Your task to perform on an android device: Go to CNN.com Image 0: 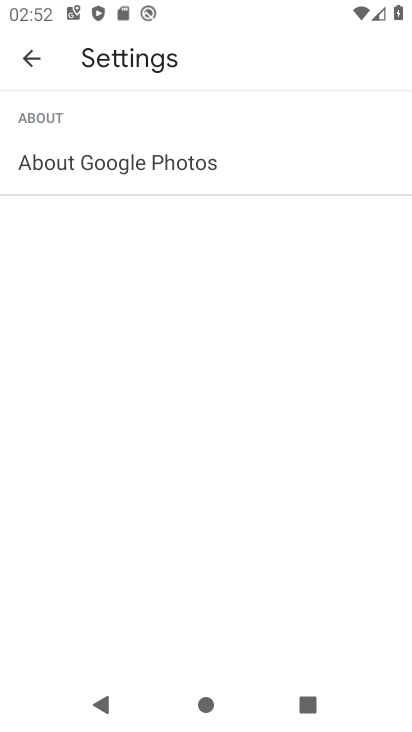
Step 0: press home button
Your task to perform on an android device: Go to CNN.com Image 1: 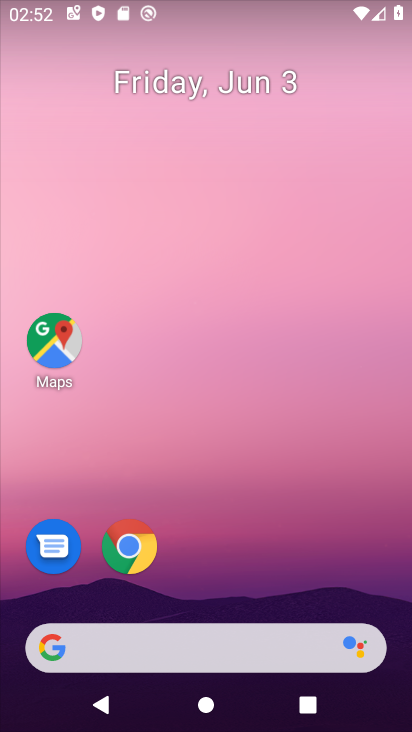
Step 1: click (120, 532)
Your task to perform on an android device: Go to CNN.com Image 2: 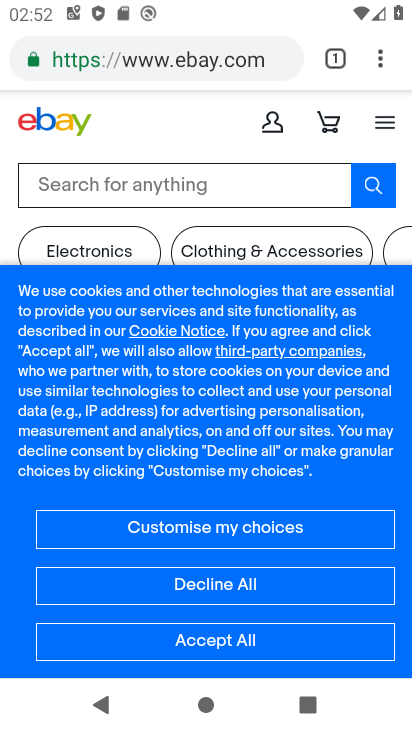
Step 2: click (193, 65)
Your task to perform on an android device: Go to CNN.com Image 3: 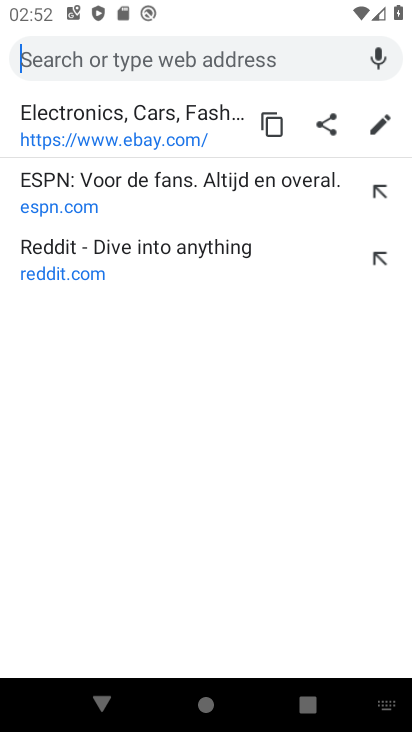
Step 3: type "CNN.com"
Your task to perform on an android device: Go to CNN.com Image 4: 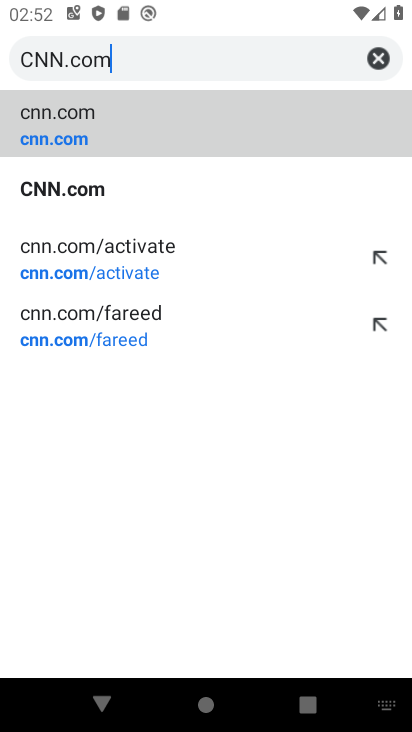
Step 4: click (43, 99)
Your task to perform on an android device: Go to CNN.com Image 5: 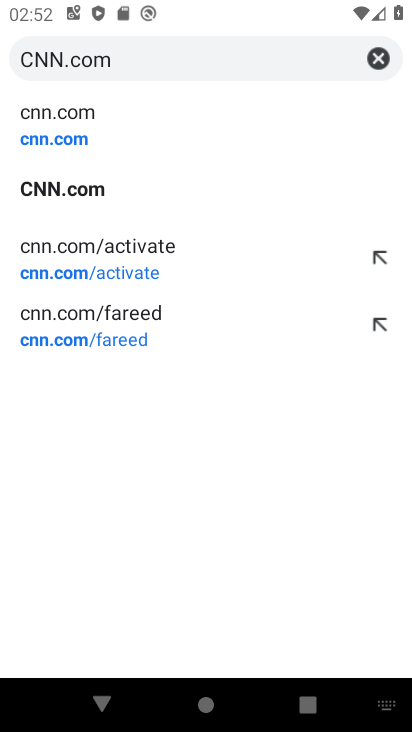
Step 5: click (90, 120)
Your task to perform on an android device: Go to CNN.com Image 6: 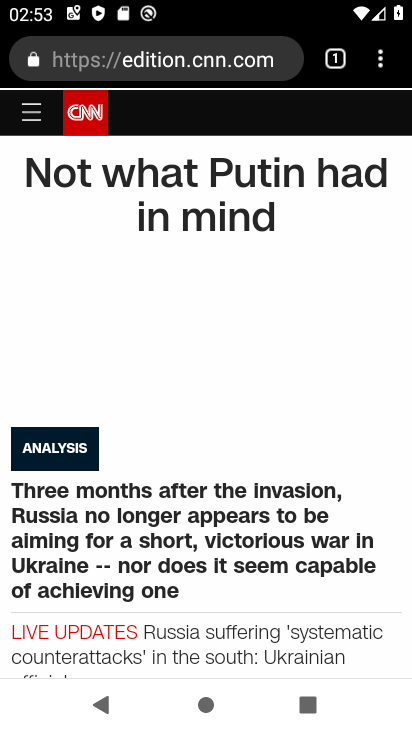
Step 6: task complete